Your task to perform on an android device: Search for "razer thresher" on amazon.com, select the first entry, and add it to the cart. Image 0: 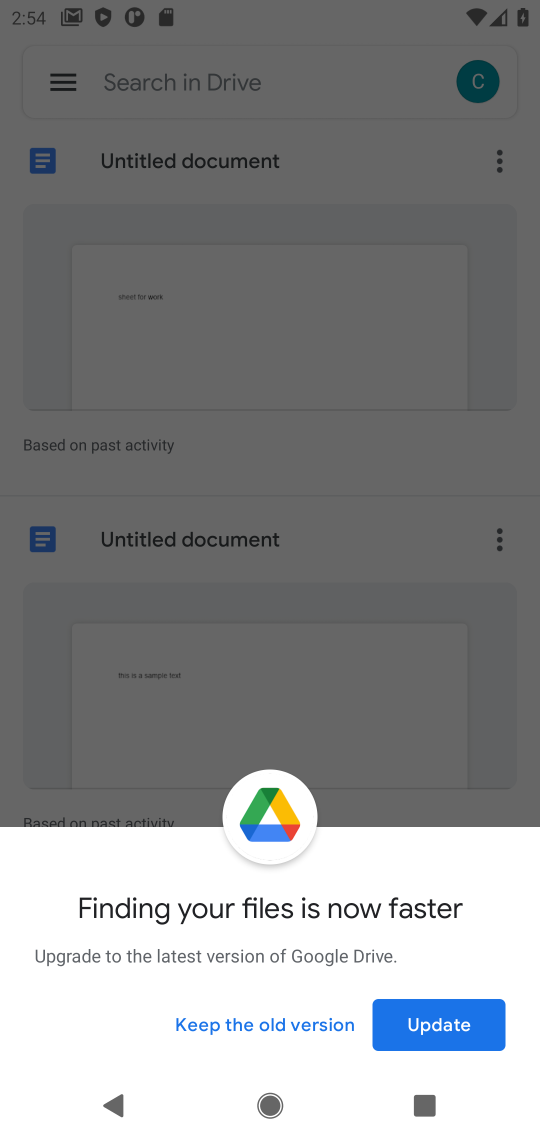
Step 0: press home button
Your task to perform on an android device: Search for "razer thresher" on amazon.com, select the first entry, and add it to the cart. Image 1: 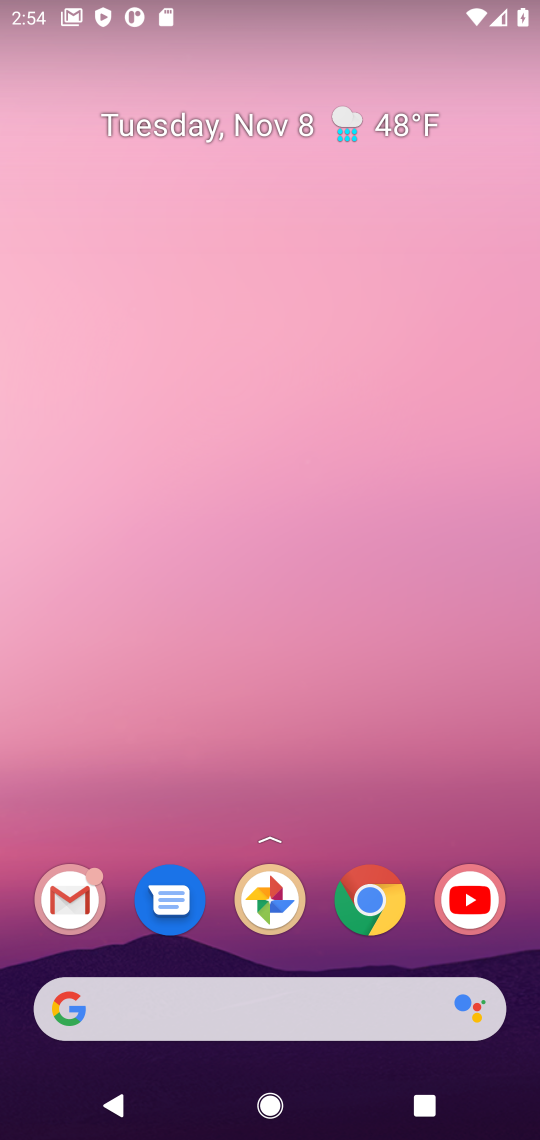
Step 1: click (358, 907)
Your task to perform on an android device: Search for "razer thresher" on amazon.com, select the first entry, and add it to the cart. Image 2: 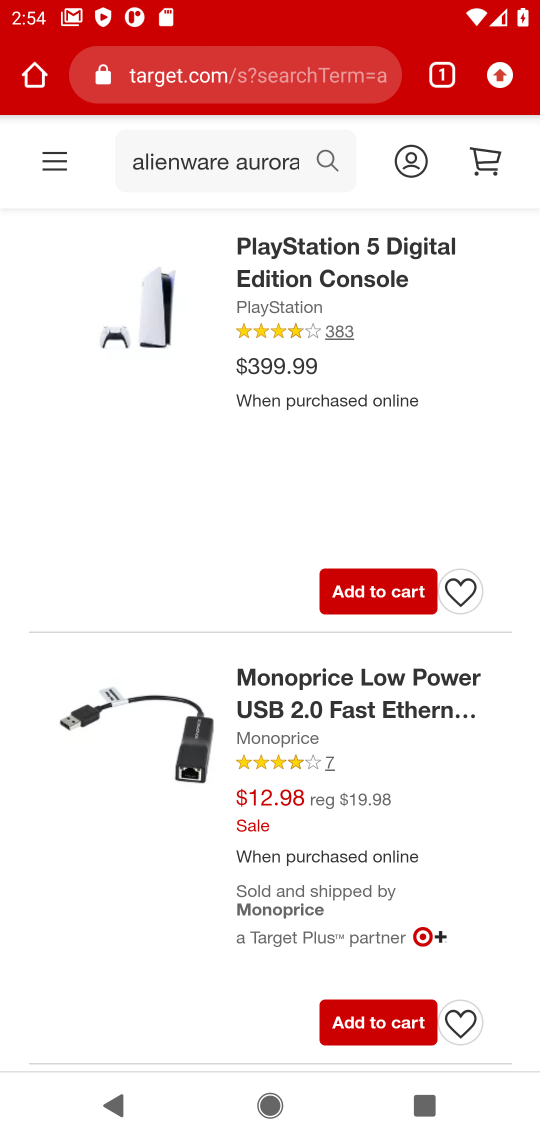
Step 2: click (15, 87)
Your task to perform on an android device: Search for "razer thresher" on amazon.com, select the first entry, and add it to the cart. Image 3: 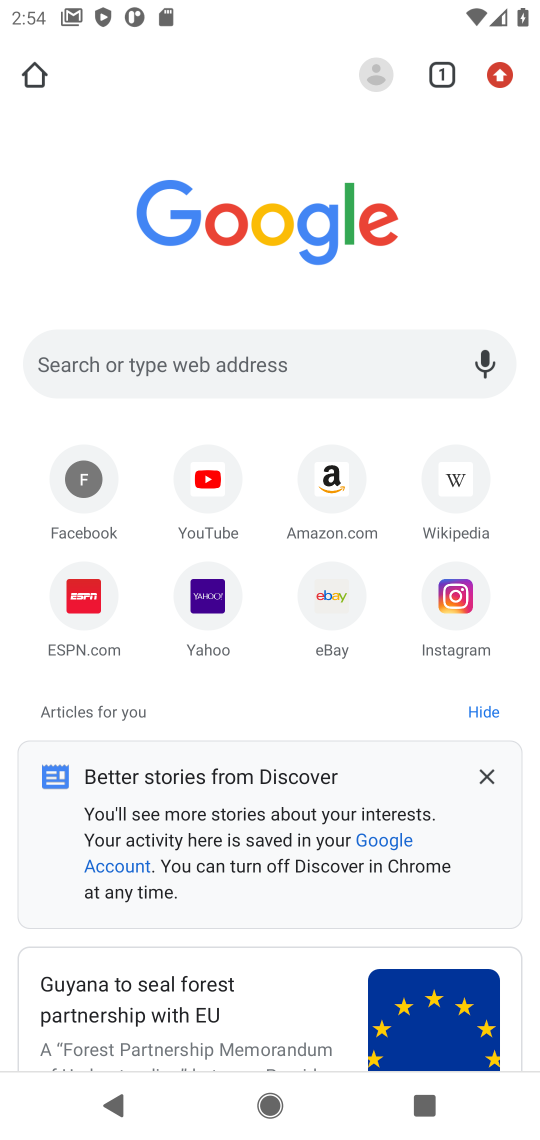
Step 3: click (330, 480)
Your task to perform on an android device: Search for "razer thresher" on amazon.com, select the first entry, and add it to the cart. Image 4: 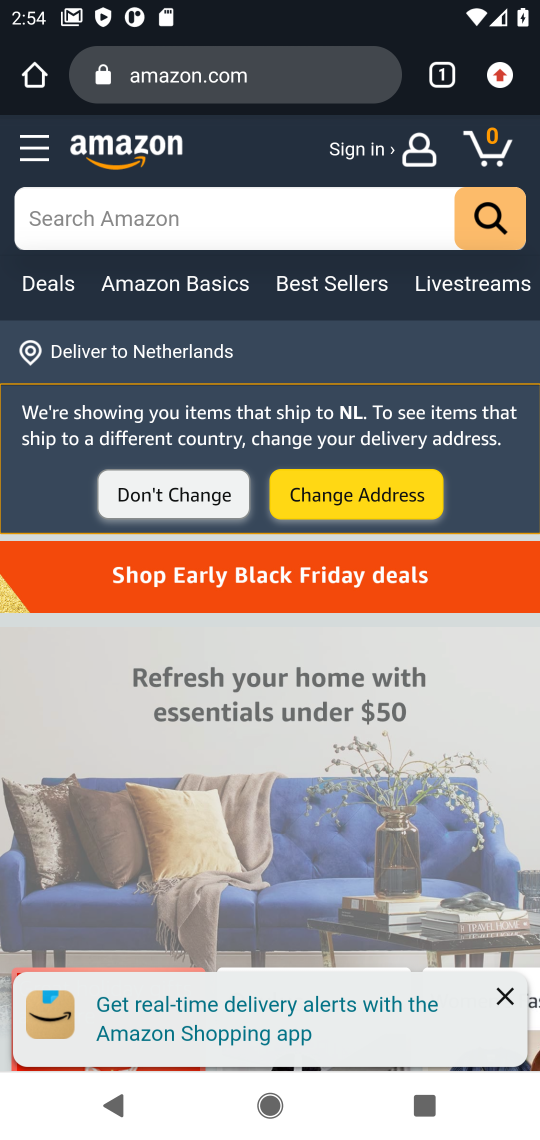
Step 4: click (374, 222)
Your task to perform on an android device: Search for "razer thresher" on amazon.com, select the first entry, and add it to the cart. Image 5: 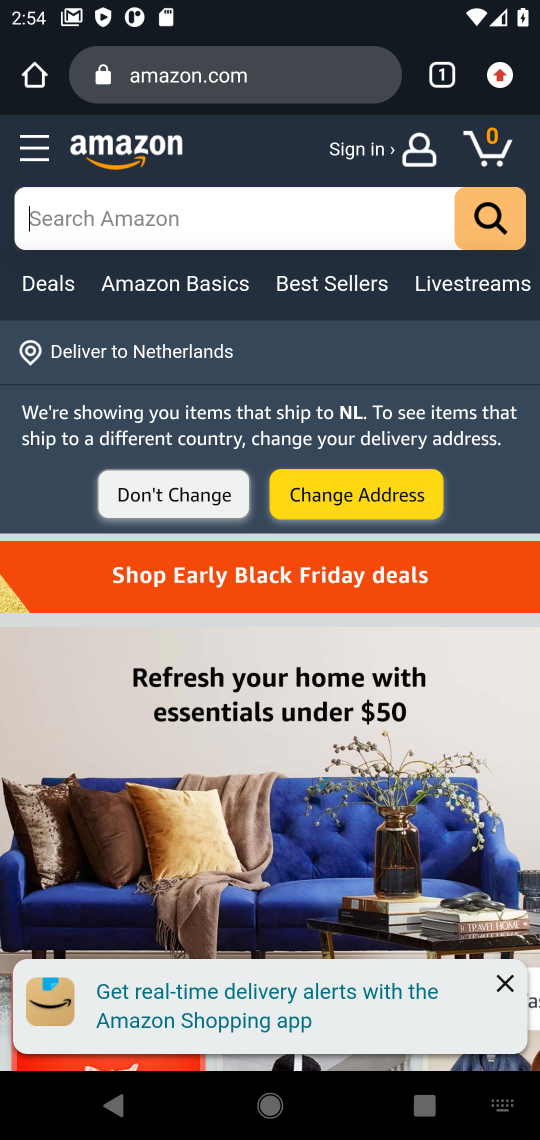
Step 5: press enter
Your task to perform on an android device: Search for "razer thresher" on amazon.com, select the first entry, and add it to the cart. Image 6: 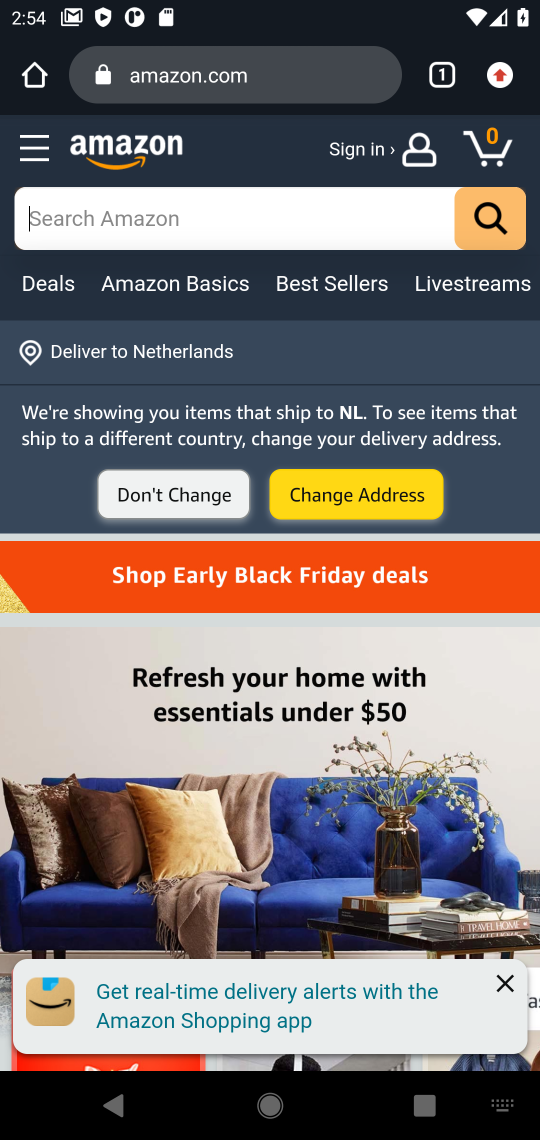
Step 6: type "razer thresher"
Your task to perform on an android device: Search for "razer thresher" on amazon.com, select the first entry, and add it to the cart. Image 7: 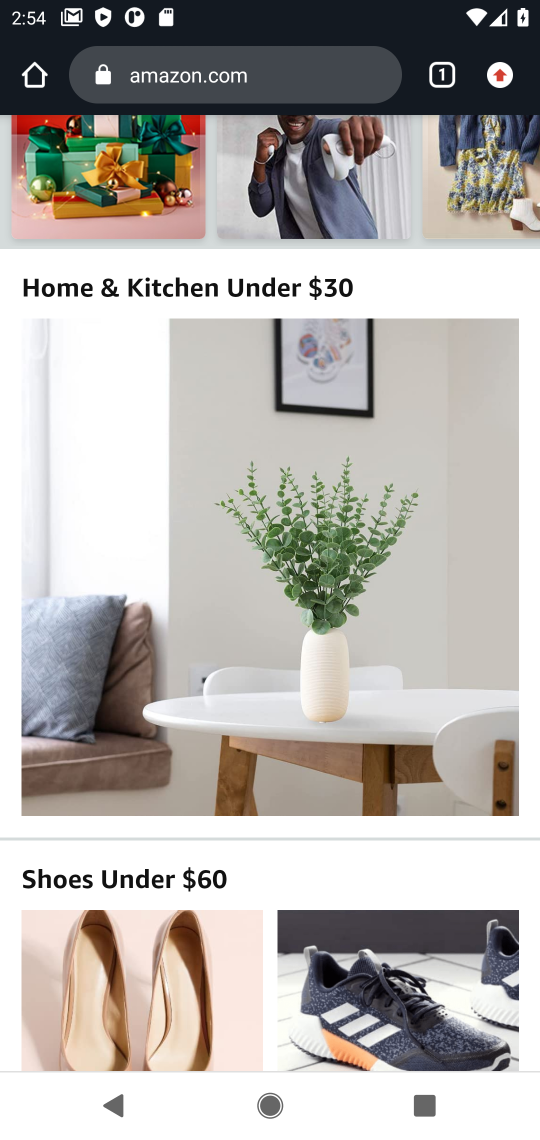
Step 7: drag from (345, 214) to (433, 971)
Your task to perform on an android device: Search for "razer thresher" on amazon.com, select the first entry, and add it to the cart. Image 8: 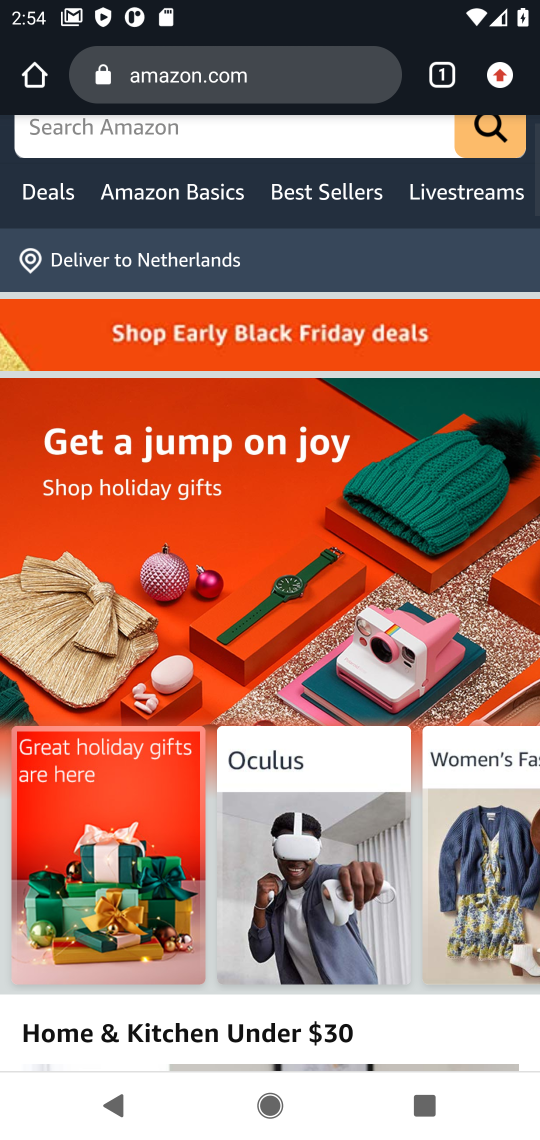
Step 8: drag from (281, 538) to (362, 855)
Your task to perform on an android device: Search for "razer thresher" on amazon.com, select the first entry, and add it to the cart. Image 9: 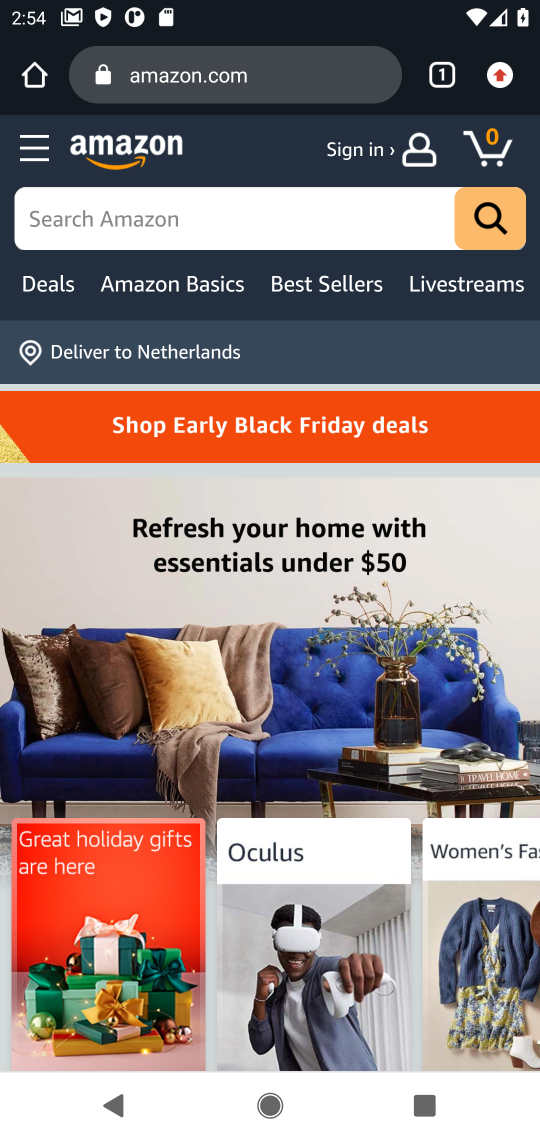
Step 9: click (277, 211)
Your task to perform on an android device: Search for "razer thresher" on amazon.com, select the first entry, and add it to the cart. Image 10: 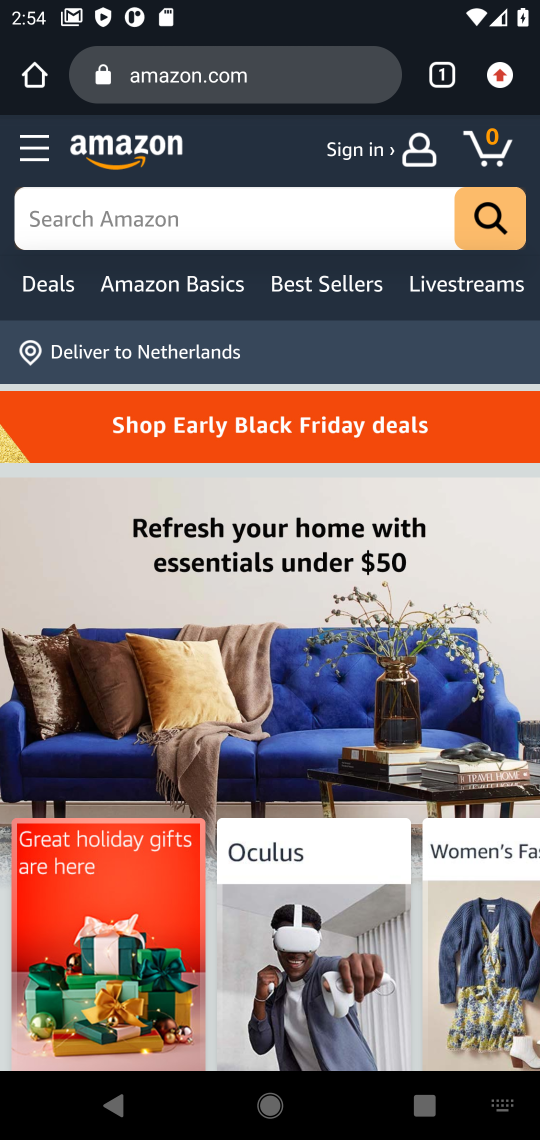
Step 10: press enter
Your task to perform on an android device: Search for "razer thresher" on amazon.com, select the first entry, and add it to the cart. Image 11: 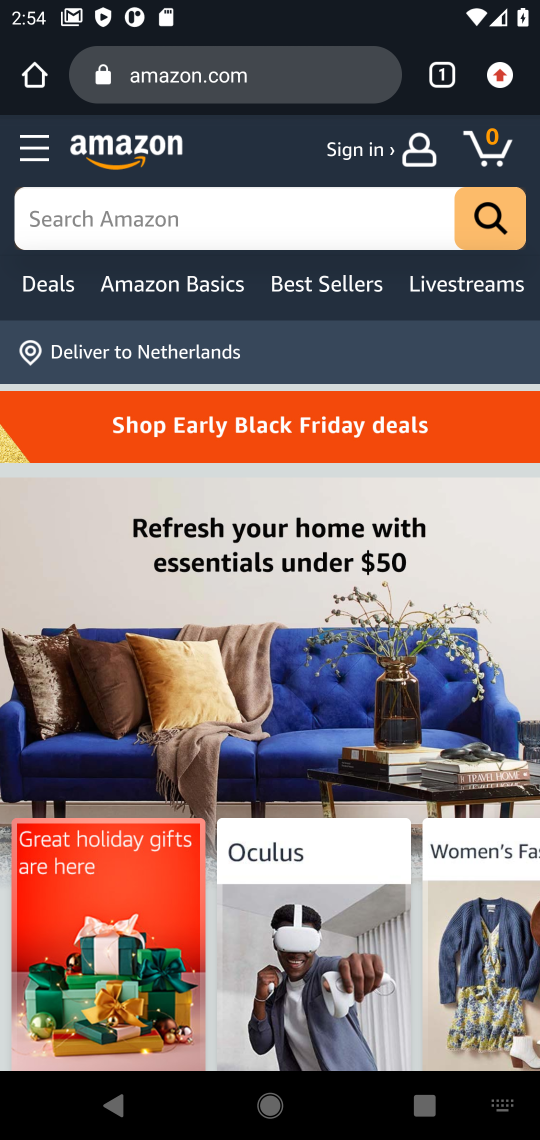
Step 11: type "razer thresher"
Your task to perform on an android device: Search for "razer thresher" on amazon.com, select the first entry, and add it to the cart. Image 12: 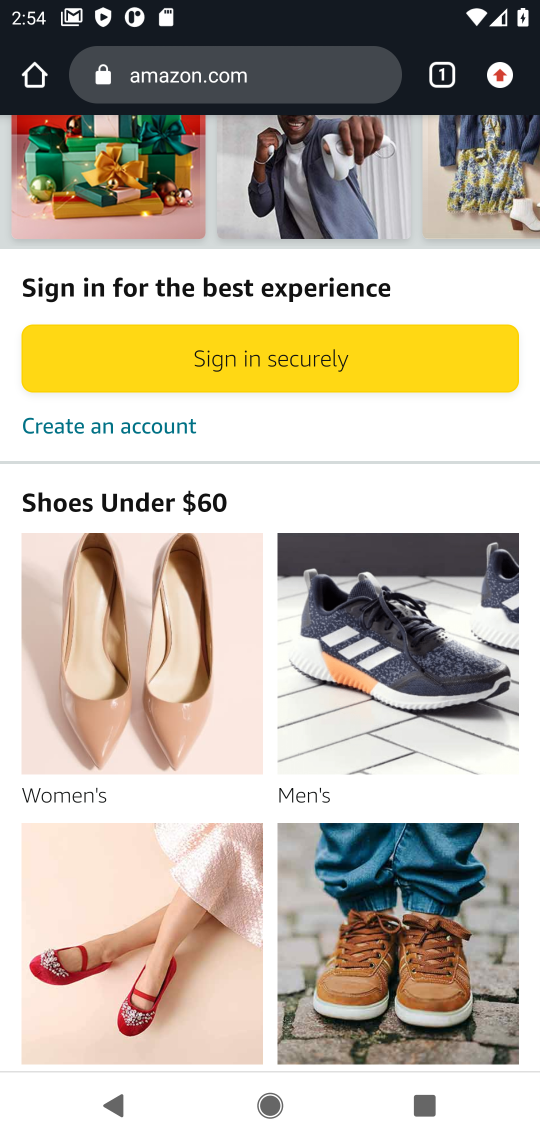
Step 12: task complete